Your task to perform on an android device: Search for "apple airpods pro" on costco.com, select the first entry, and add it to the cart. Image 0: 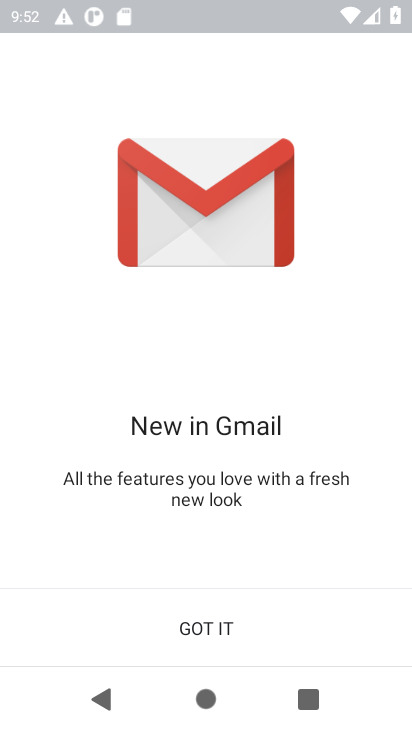
Step 0: press home button
Your task to perform on an android device: Search for "apple airpods pro" on costco.com, select the first entry, and add it to the cart. Image 1: 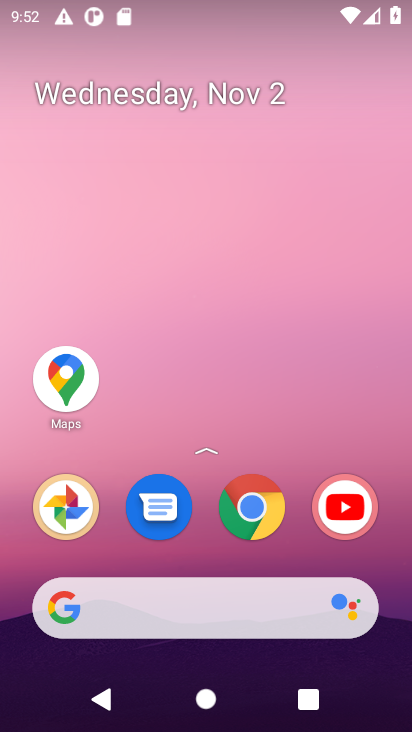
Step 1: click (162, 601)
Your task to perform on an android device: Search for "apple airpods pro" on costco.com, select the first entry, and add it to the cart. Image 2: 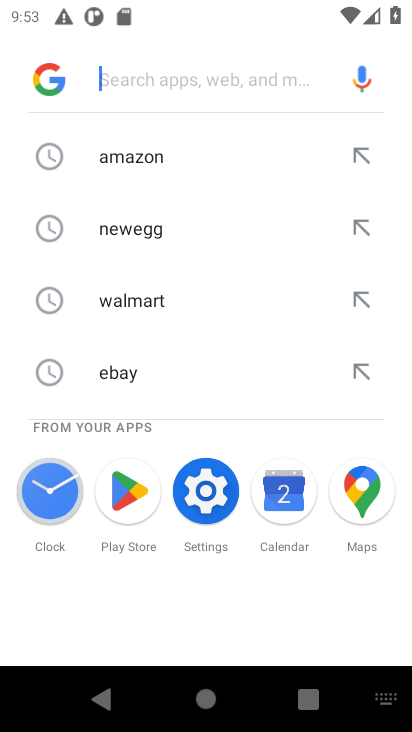
Step 2: type "costco"
Your task to perform on an android device: Search for "apple airpods pro" on costco.com, select the first entry, and add it to the cart. Image 3: 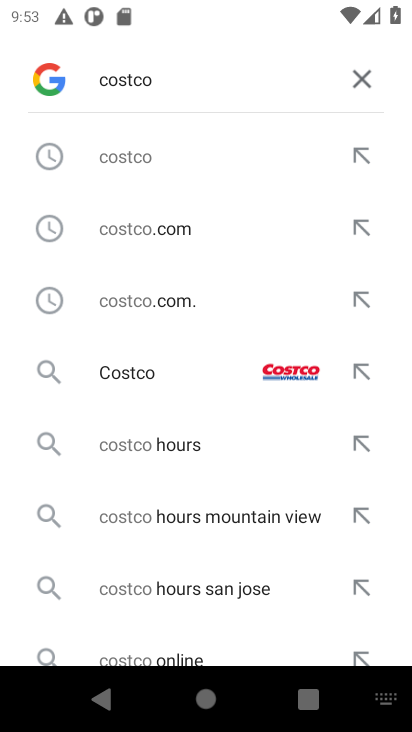
Step 3: click (127, 153)
Your task to perform on an android device: Search for "apple airpods pro" on costco.com, select the first entry, and add it to the cart. Image 4: 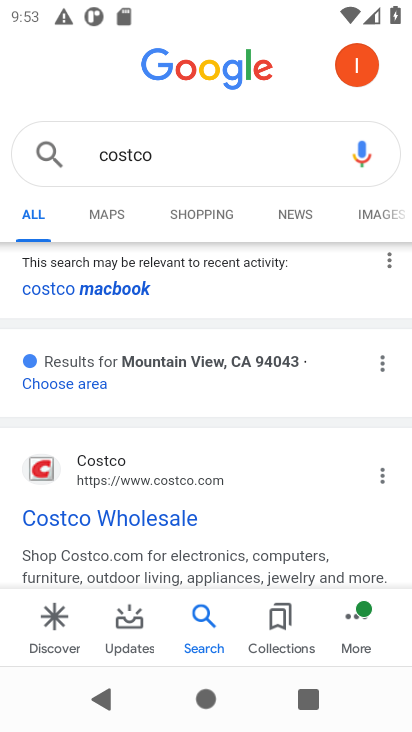
Step 4: click (99, 522)
Your task to perform on an android device: Search for "apple airpods pro" on costco.com, select the first entry, and add it to the cart. Image 5: 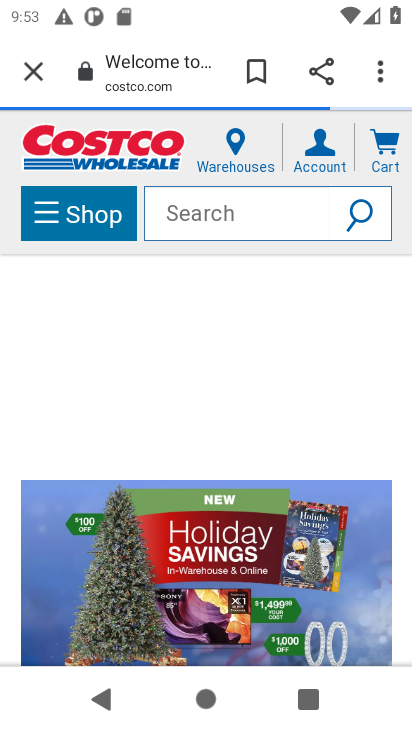
Step 5: click (201, 228)
Your task to perform on an android device: Search for "apple airpods pro" on costco.com, select the first entry, and add it to the cart. Image 6: 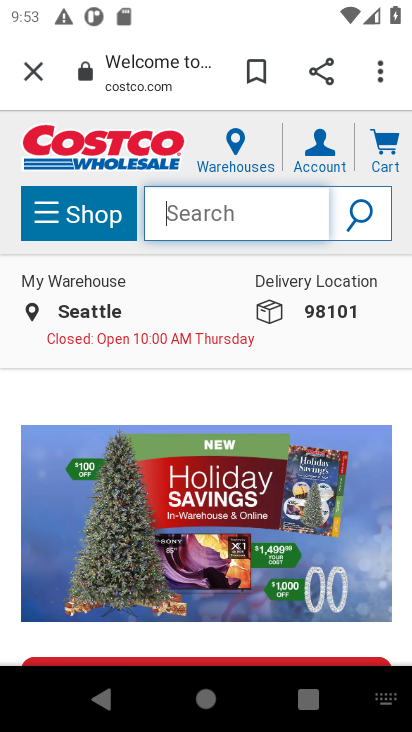
Step 6: type "apple airpod"
Your task to perform on an android device: Search for "apple airpods pro" on costco.com, select the first entry, and add it to the cart. Image 7: 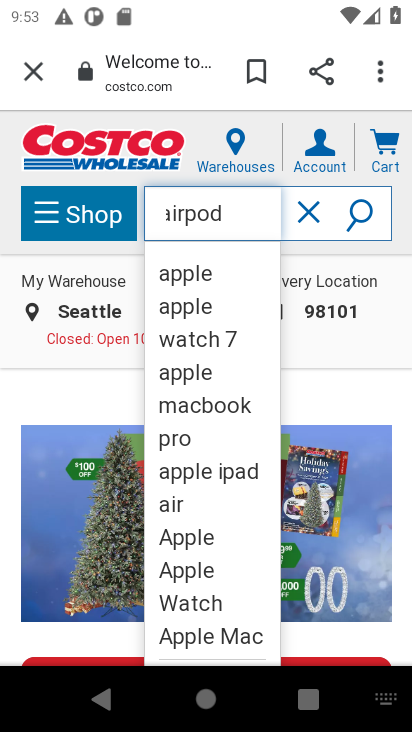
Step 7: click (216, 303)
Your task to perform on an android device: Search for "apple airpods pro" on costco.com, select the first entry, and add it to the cart. Image 8: 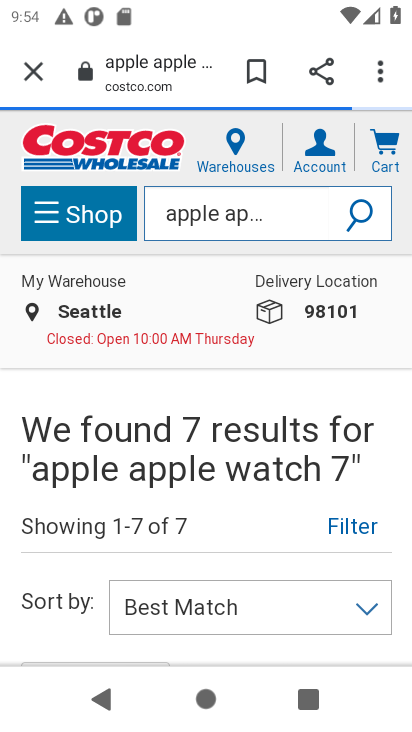
Step 8: task complete